Your task to perform on an android device: Open Youtube and go to "Your channel" Image 0: 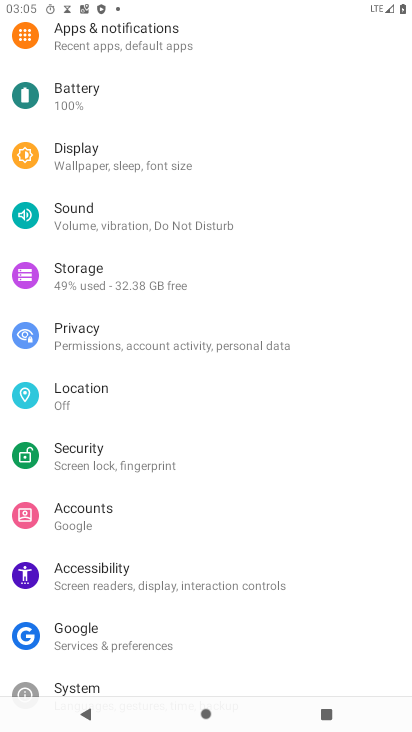
Step 0: press home button
Your task to perform on an android device: Open Youtube and go to "Your channel" Image 1: 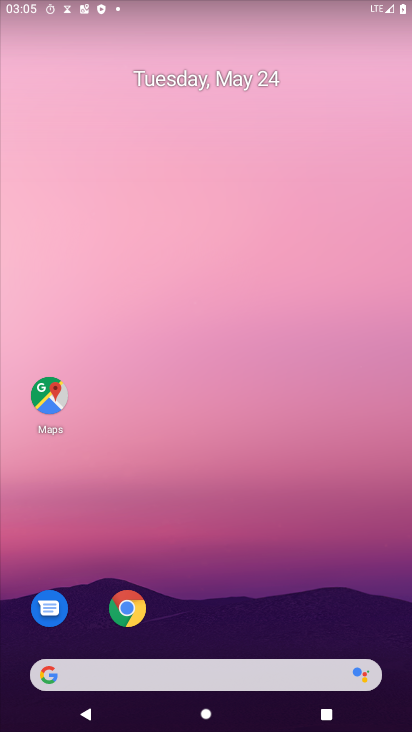
Step 1: drag from (244, 638) to (258, 275)
Your task to perform on an android device: Open Youtube and go to "Your channel" Image 2: 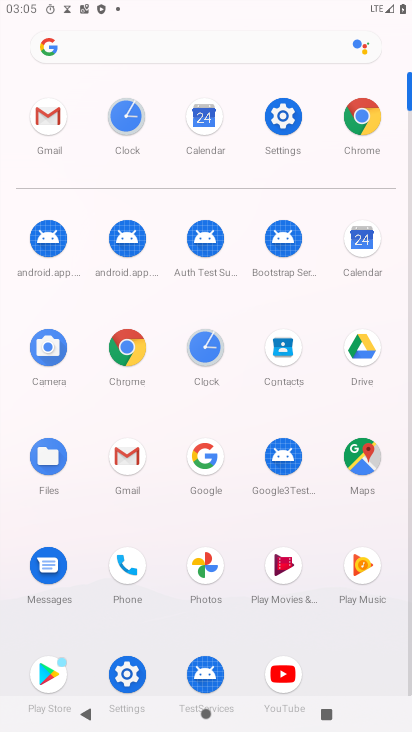
Step 2: click (278, 663)
Your task to perform on an android device: Open Youtube and go to "Your channel" Image 3: 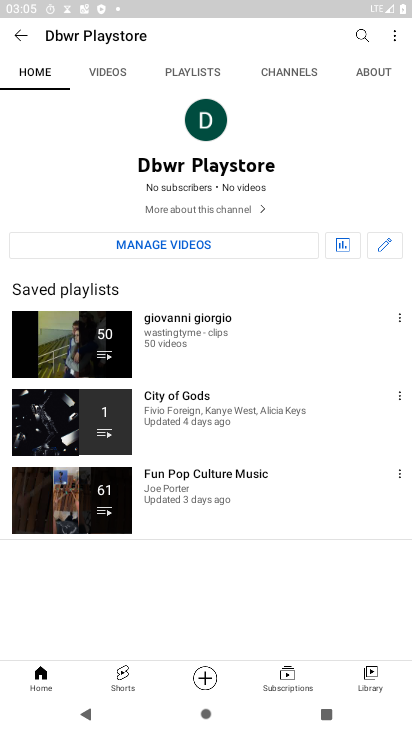
Step 3: task complete